Your task to perform on an android device: Open Google Maps and go to "Timeline" Image 0: 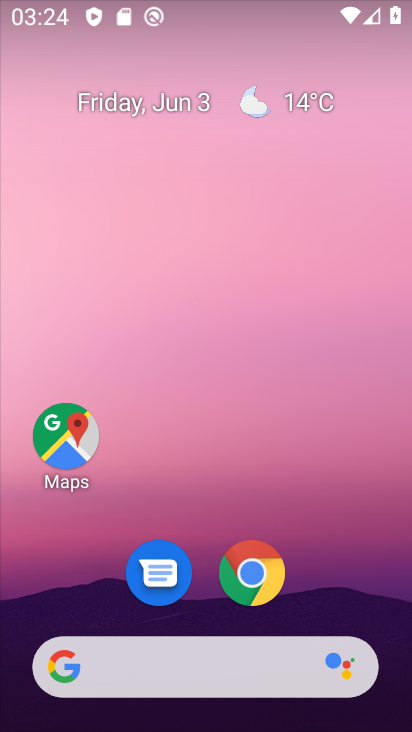
Step 0: drag from (293, 648) to (320, 12)
Your task to perform on an android device: Open Google Maps and go to "Timeline" Image 1: 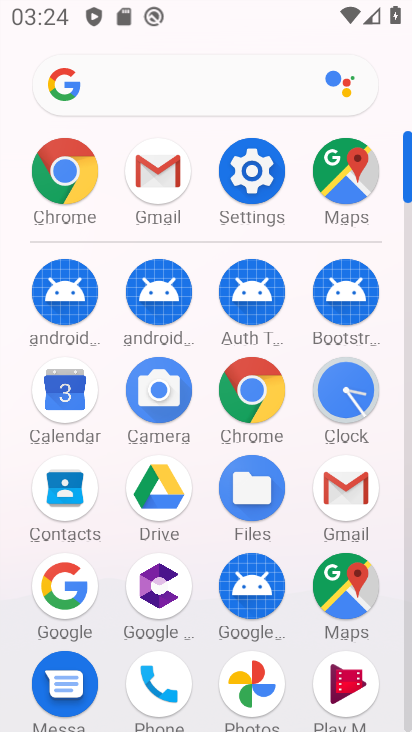
Step 1: click (343, 589)
Your task to perform on an android device: Open Google Maps and go to "Timeline" Image 2: 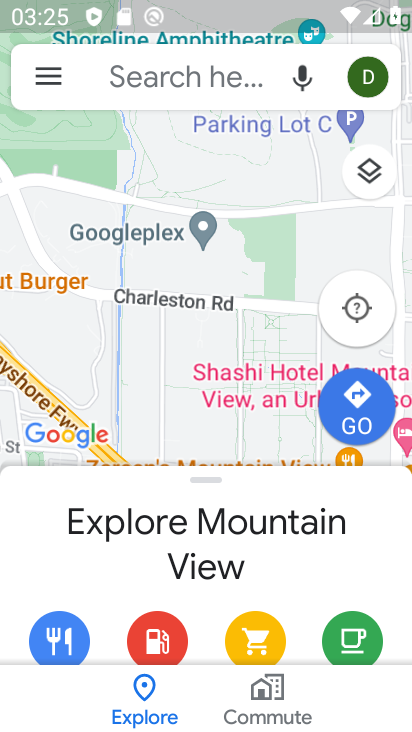
Step 2: click (38, 71)
Your task to perform on an android device: Open Google Maps and go to "Timeline" Image 3: 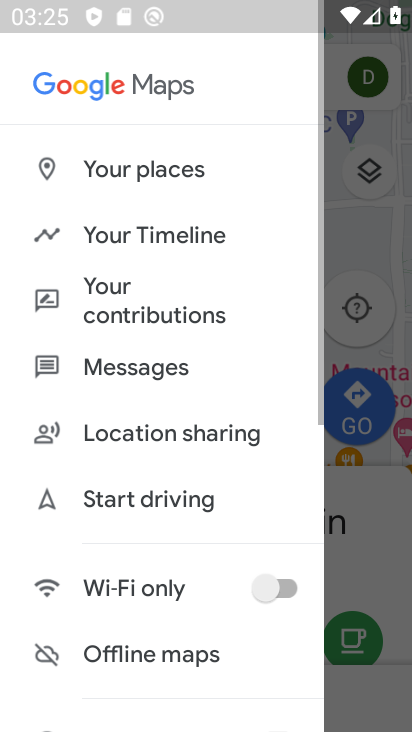
Step 3: click (91, 245)
Your task to perform on an android device: Open Google Maps and go to "Timeline" Image 4: 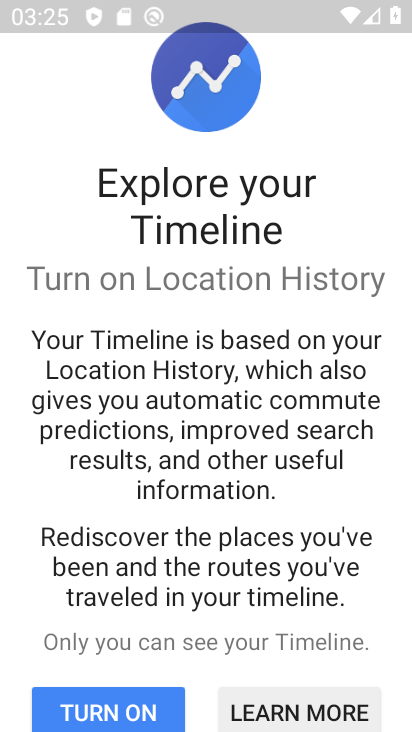
Step 4: drag from (291, 650) to (274, 124)
Your task to perform on an android device: Open Google Maps and go to "Timeline" Image 5: 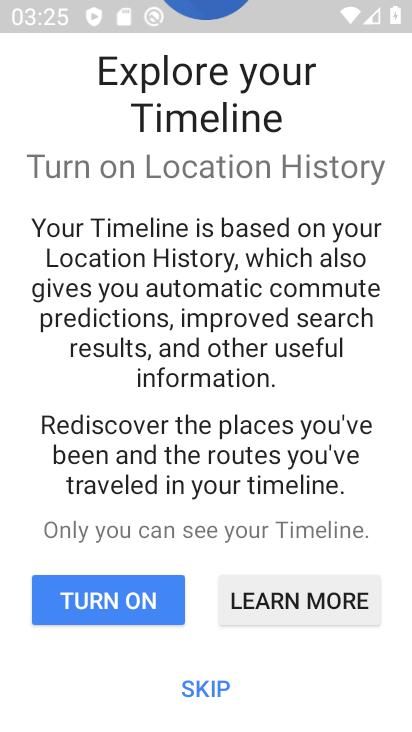
Step 5: click (198, 689)
Your task to perform on an android device: Open Google Maps and go to "Timeline" Image 6: 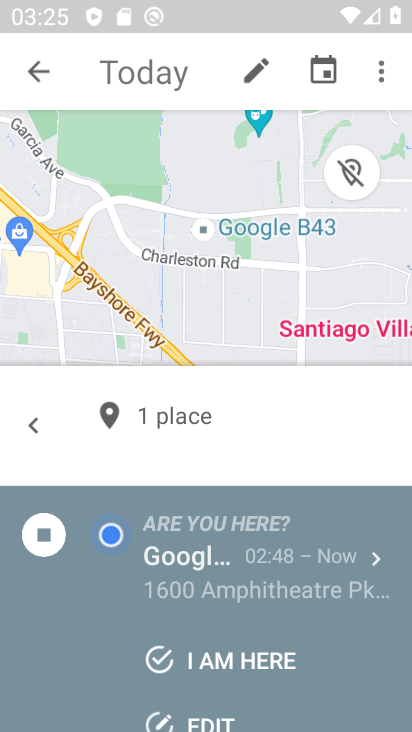
Step 6: task complete